Your task to perform on an android device: refresh tabs in the chrome app Image 0: 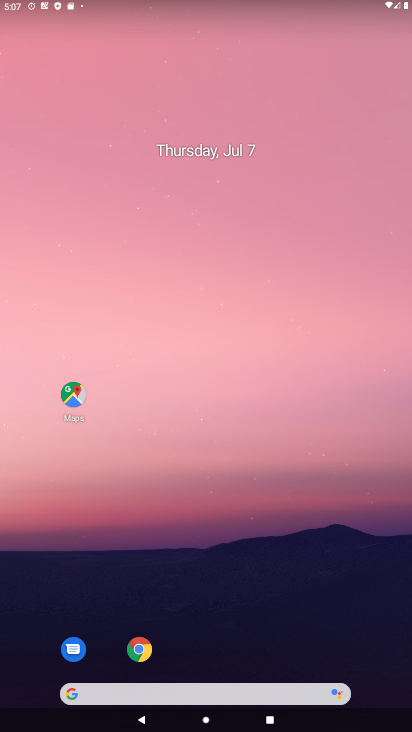
Step 0: drag from (379, 655) to (263, 163)
Your task to perform on an android device: refresh tabs in the chrome app Image 1: 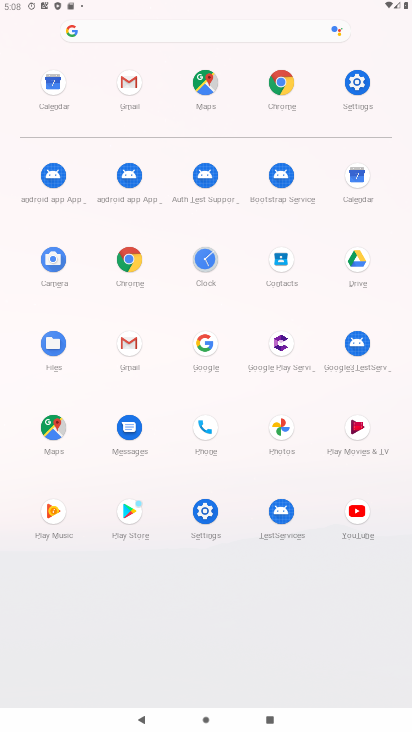
Step 1: click (284, 72)
Your task to perform on an android device: refresh tabs in the chrome app Image 2: 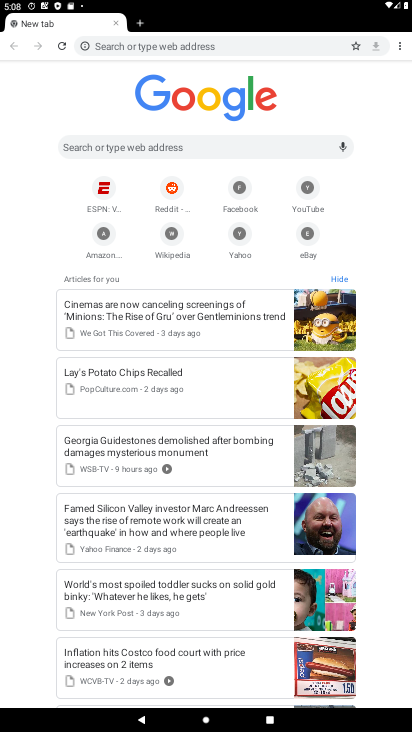
Step 2: click (397, 48)
Your task to perform on an android device: refresh tabs in the chrome app Image 3: 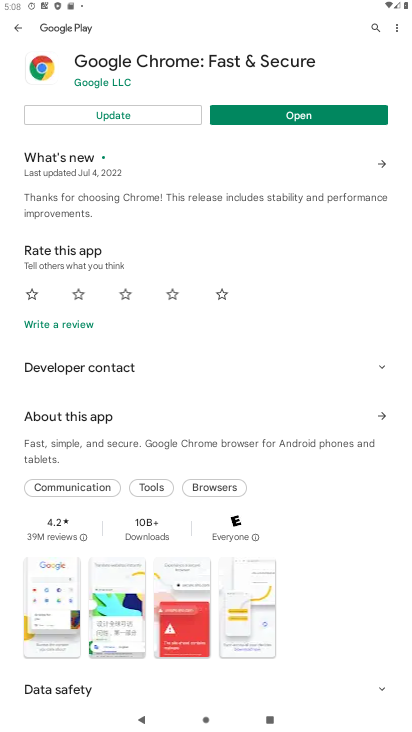
Step 3: click (114, 121)
Your task to perform on an android device: refresh tabs in the chrome app Image 4: 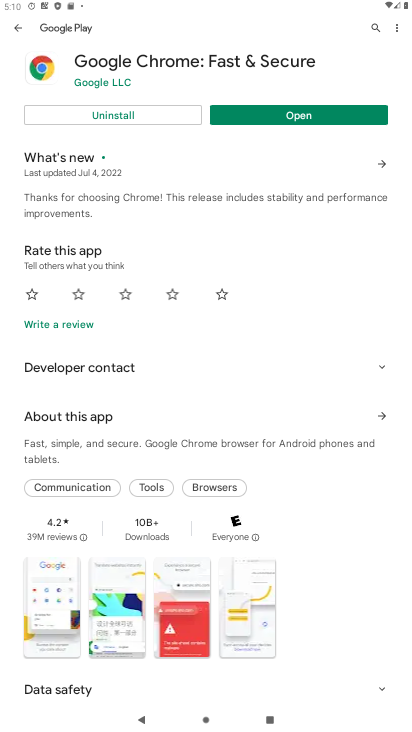
Step 4: click (272, 111)
Your task to perform on an android device: refresh tabs in the chrome app Image 5: 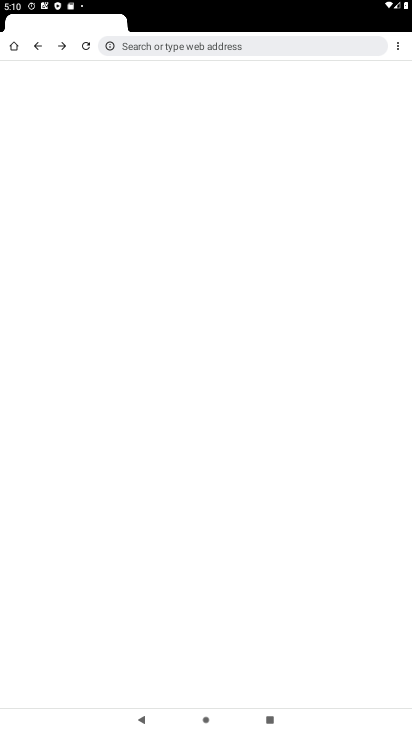
Step 5: click (397, 44)
Your task to perform on an android device: refresh tabs in the chrome app Image 6: 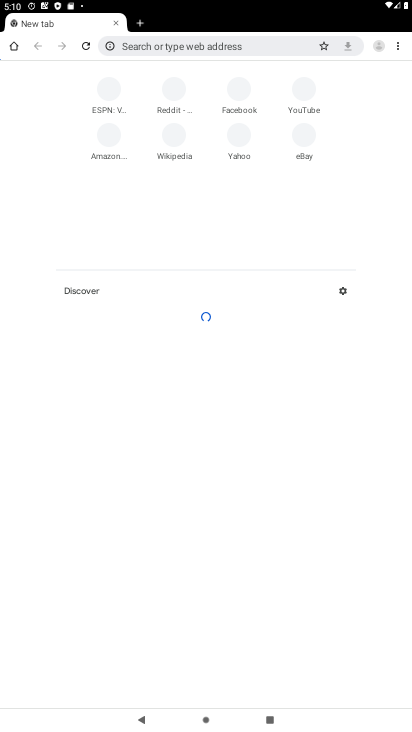
Step 6: click (397, 44)
Your task to perform on an android device: refresh tabs in the chrome app Image 7: 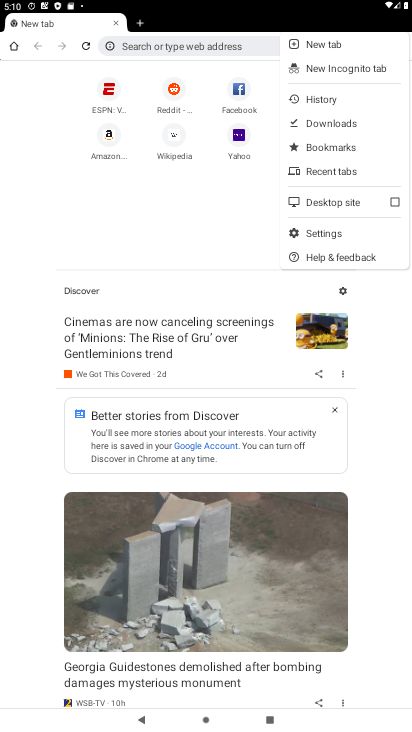
Step 7: click (82, 56)
Your task to perform on an android device: refresh tabs in the chrome app Image 8: 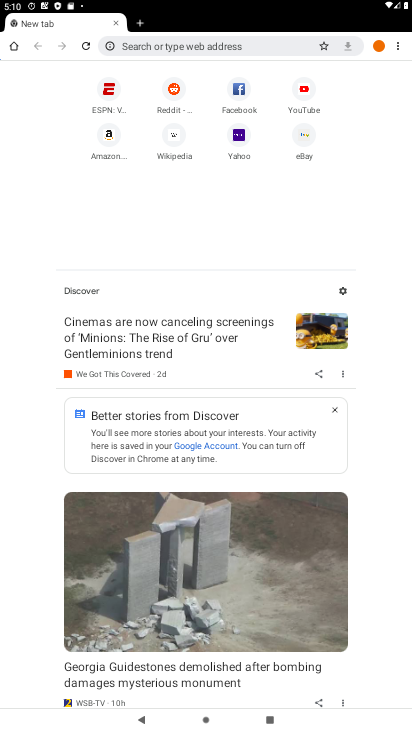
Step 8: click (84, 49)
Your task to perform on an android device: refresh tabs in the chrome app Image 9: 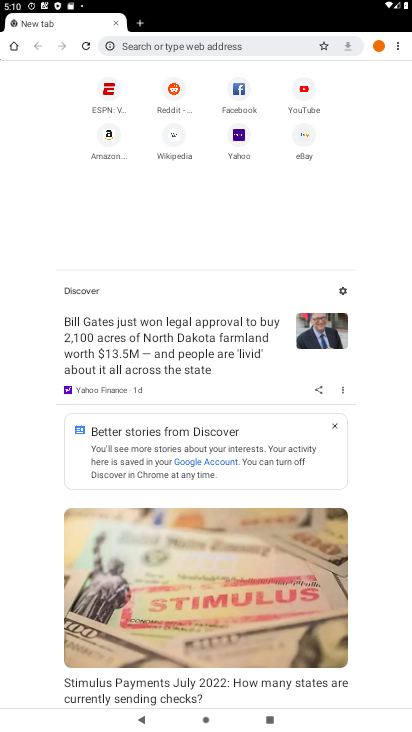
Step 9: task complete